Your task to perform on an android device: Open Google Maps Image 0: 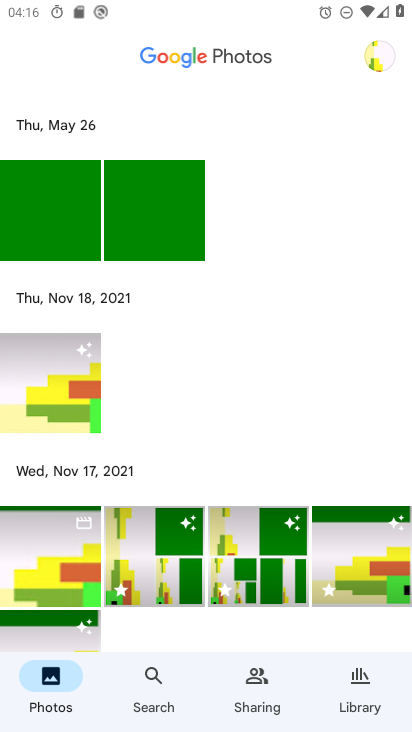
Step 0: press home button
Your task to perform on an android device: Open Google Maps Image 1: 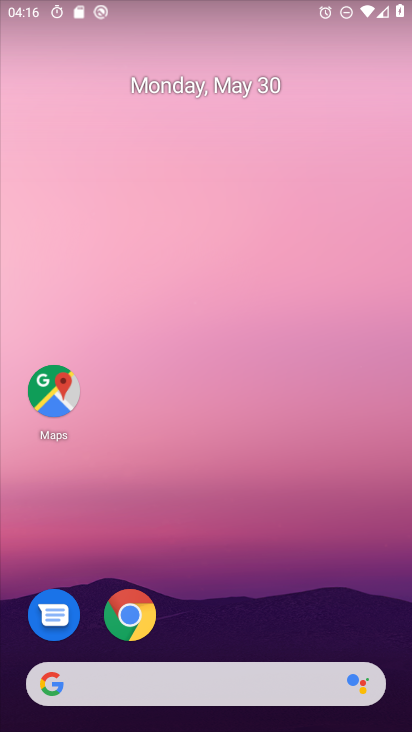
Step 1: click (55, 388)
Your task to perform on an android device: Open Google Maps Image 2: 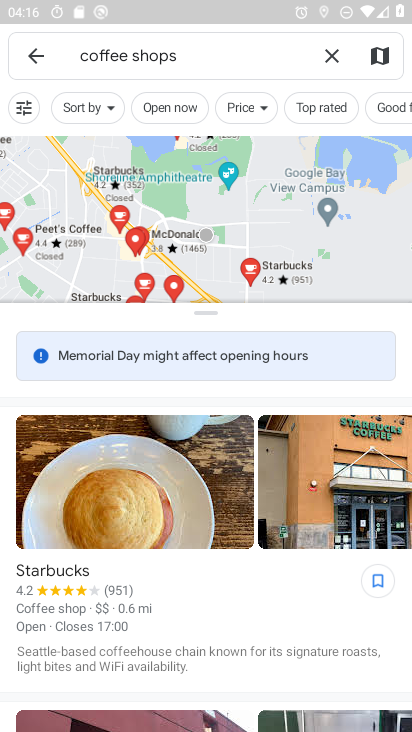
Step 2: task complete